Your task to perform on an android device: turn off smart reply in the gmail app Image 0: 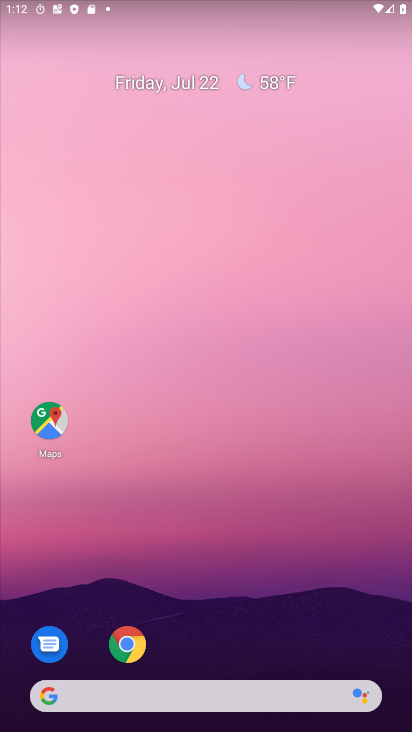
Step 0: drag from (206, 623) to (271, 98)
Your task to perform on an android device: turn off smart reply in the gmail app Image 1: 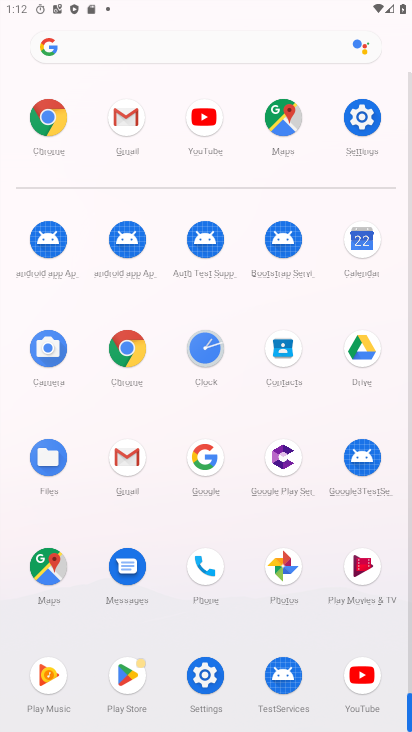
Step 1: drag from (155, 612) to (197, 342)
Your task to perform on an android device: turn off smart reply in the gmail app Image 2: 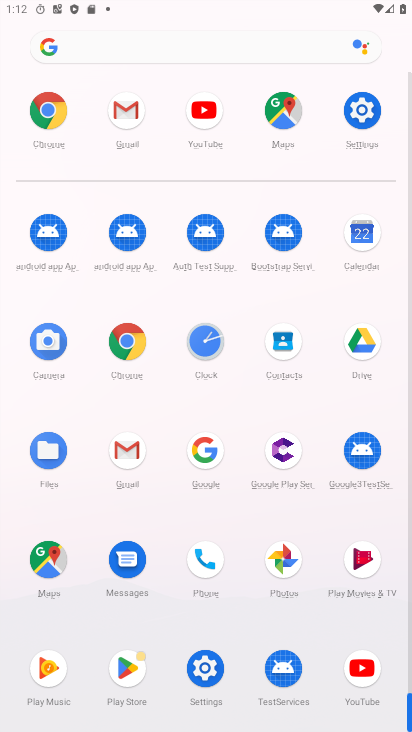
Step 2: click (117, 459)
Your task to perform on an android device: turn off smart reply in the gmail app Image 3: 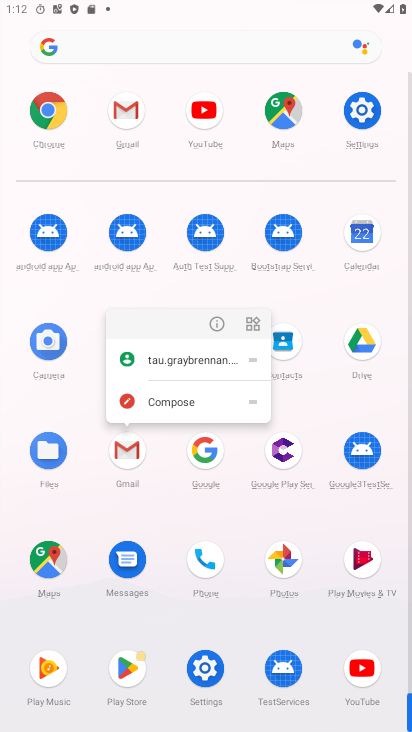
Step 3: click (215, 318)
Your task to perform on an android device: turn off smart reply in the gmail app Image 4: 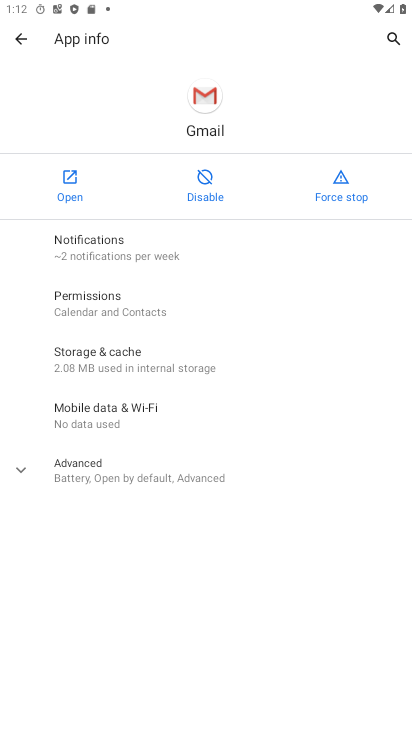
Step 4: click (69, 196)
Your task to perform on an android device: turn off smart reply in the gmail app Image 5: 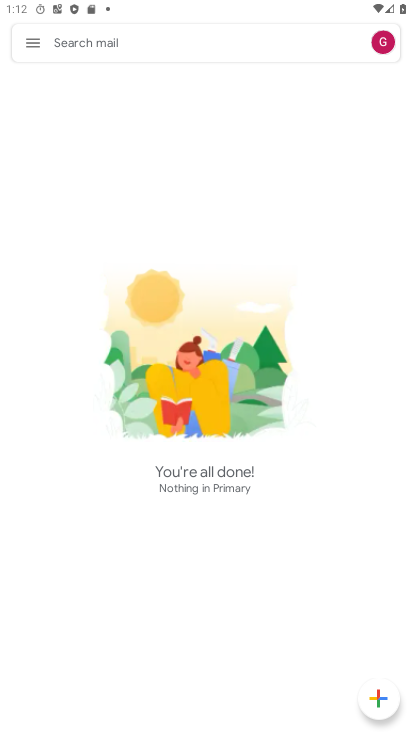
Step 5: click (39, 52)
Your task to perform on an android device: turn off smart reply in the gmail app Image 6: 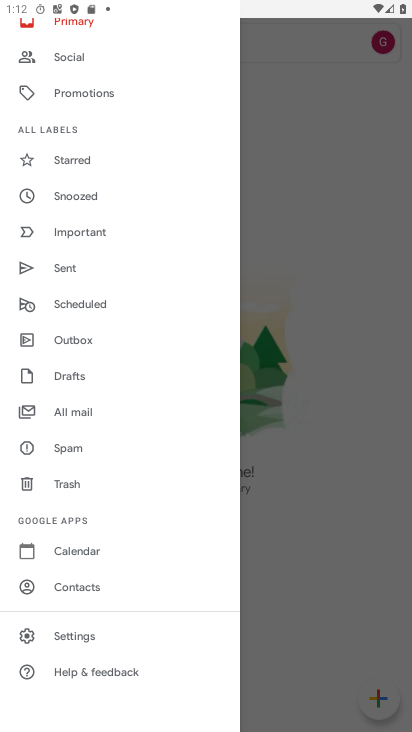
Step 6: click (110, 630)
Your task to perform on an android device: turn off smart reply in the gmail app Image 7: 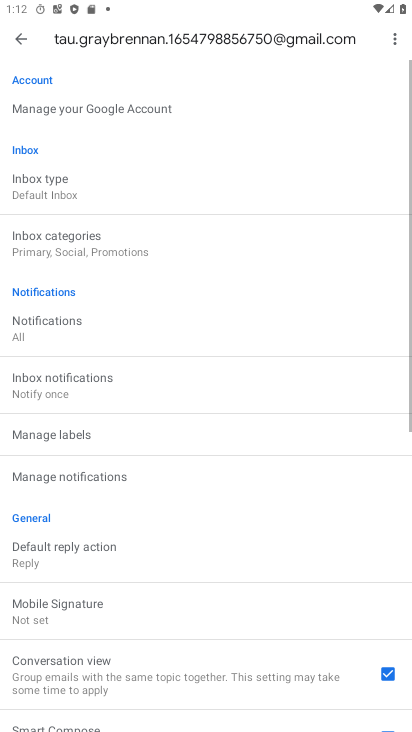
Step 7: drag from (148, 621) to (209, 347)
Your task to perform on an android device: turn off smart reply in the gmail app Image 8: 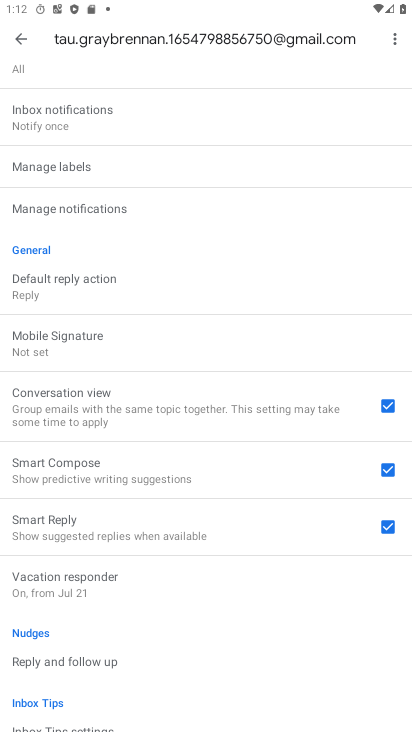
Step 8: drag from (169, 649) to (229, 341)
Your task to perform on an android device: turn off smart reply in the gmail app Image 9: 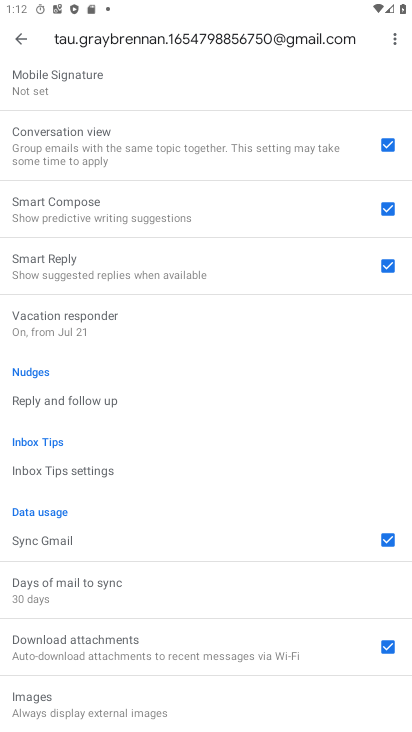
Step 9: click (380, 272)
Your task to perform on an android device: turn off smart reply in the gmail app Image 10: 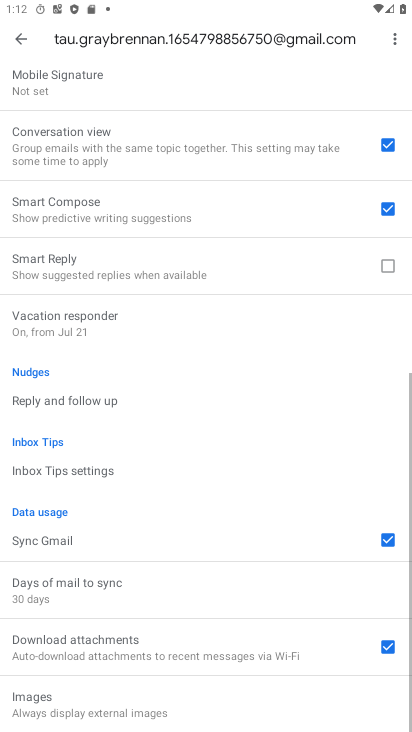
Step 10: task complete